Your task to perform on an android device: open wifi settings Image 0: 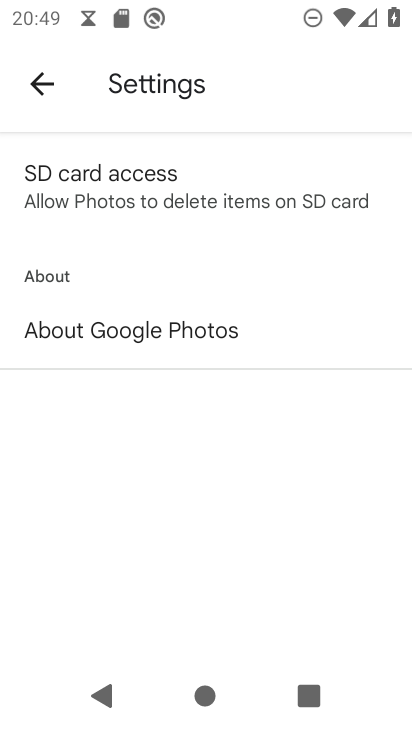
Step 0: press home button
Your task to perform on an android device: open wifi settings Image 1: 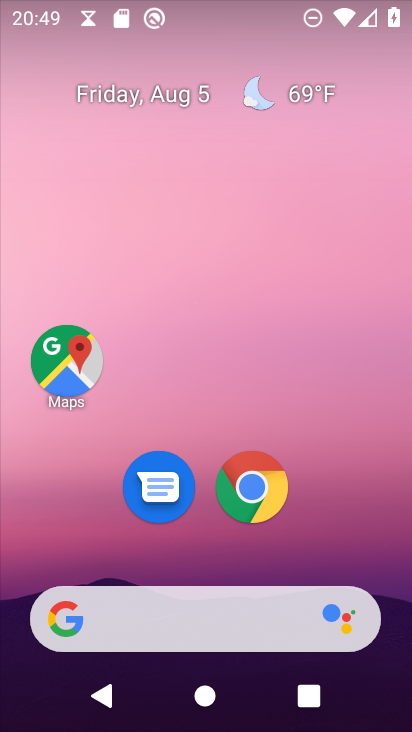
Step 1: drag from (196, 614) to (329, 3)
Your task to perform on an android device: open wifi settings Image 2: 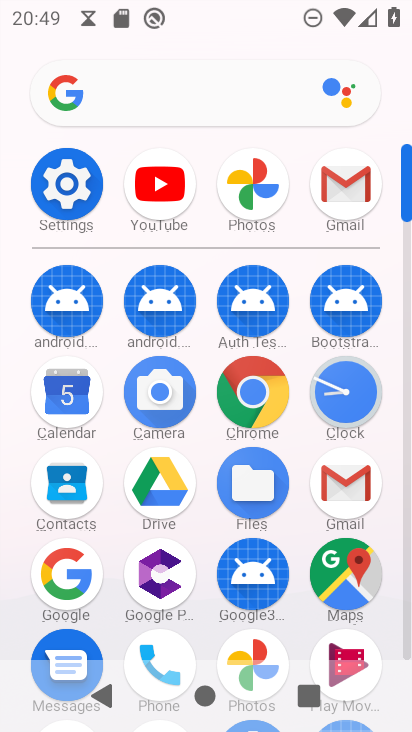
Step 2: click (57, 193)
Your task to perform on an android device: open wifi settings Image 3: 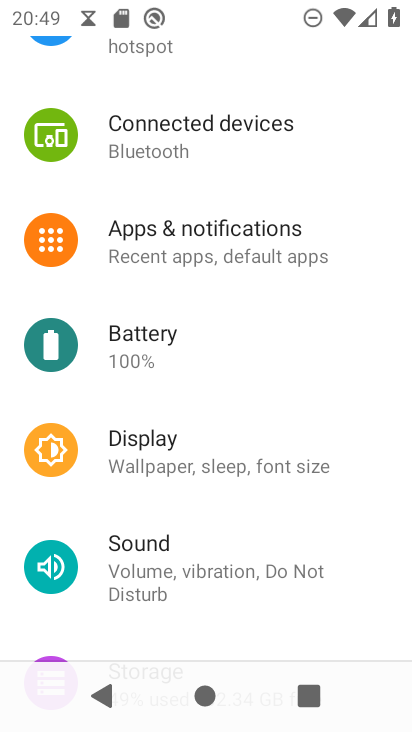
Step 3: drag from (365, 82) to (357, 609)
Your task to perform on an android device: open wifi settings Image 4: 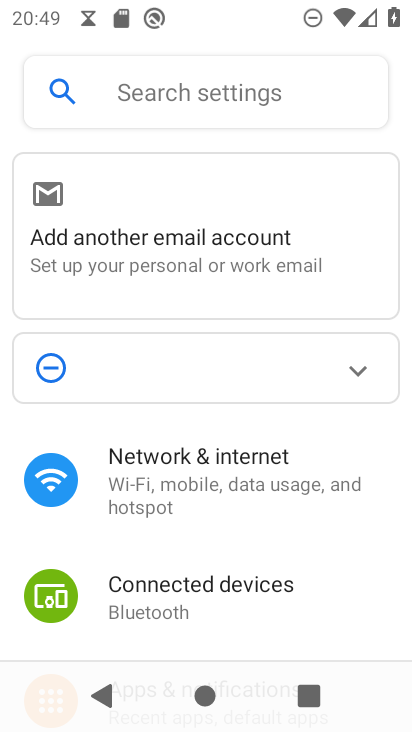
Step 4: click (189, 471)
Your task to perform on an android device: open wifi settings Image 5: 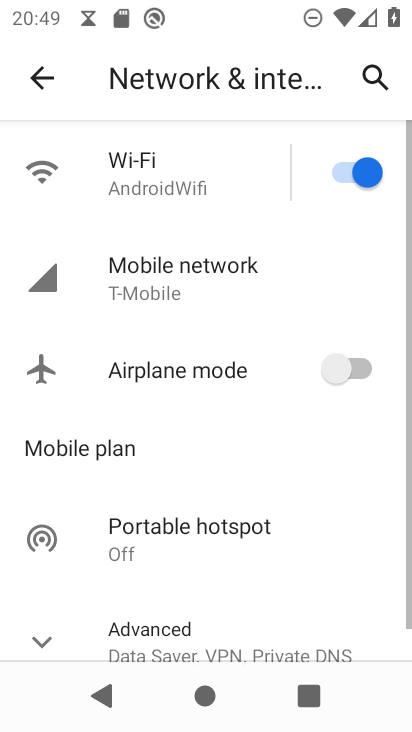
Step 5: click (161, 180)
Your task to perform on an android device: open wifi settings Image 6: 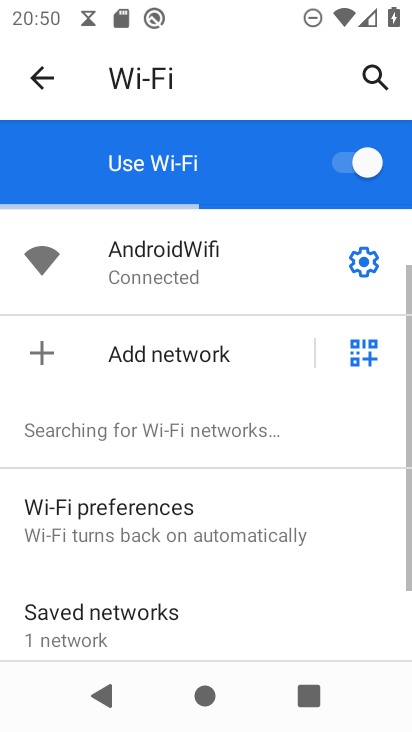
Step 6: task complete